Your task to perform on an android device: Go to Reddit.com Image 0: 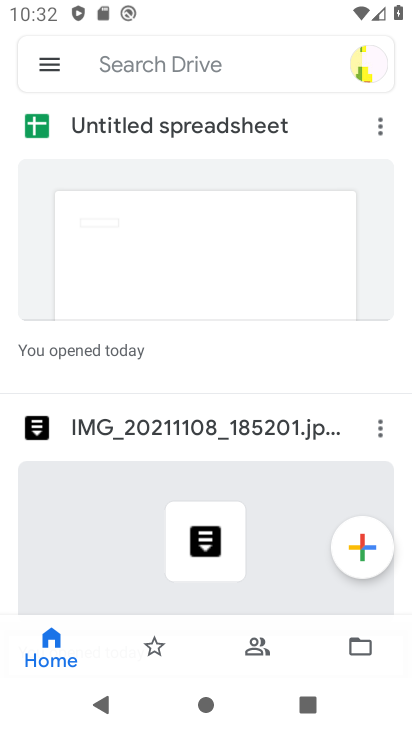
Step 0: press home button
Your task to perform on an android device: Go to Reddit.com Image 1: 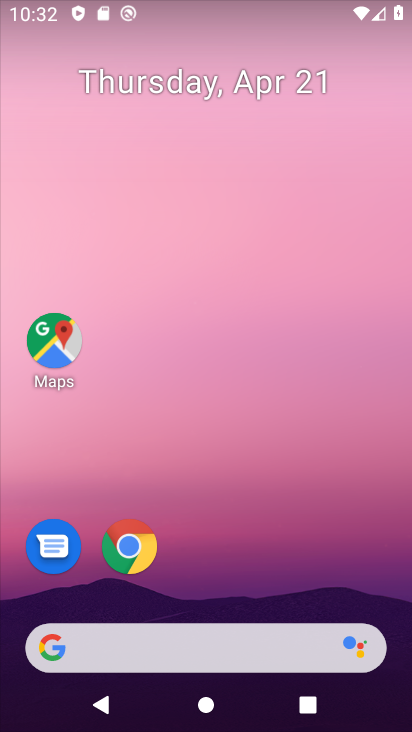
Step 1: drag from (295, 600) to (298, 150)
Your task to perform on an android device: Go to Reddit.com Image 2: 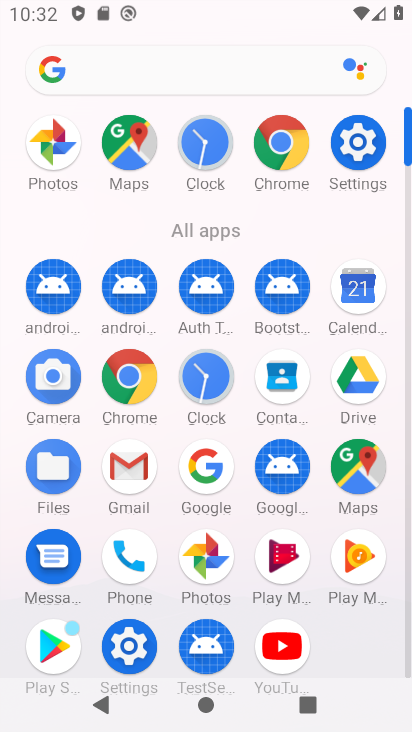
Step 2: click (135, 381)
Your task to perform on an android device: Go to Reddit.com Image 3: 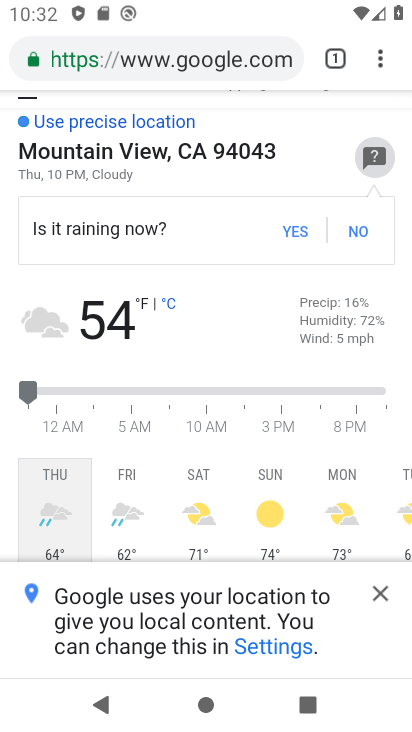
Step 3: click (217, 61)
Your task to perform on an android device: Go to Reddit.com Image 4: 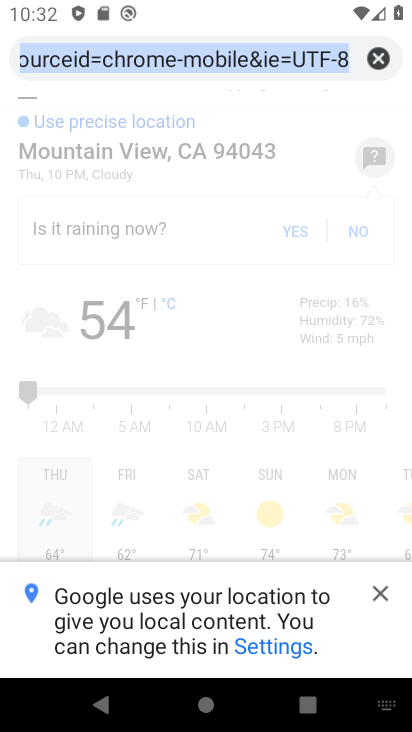
Step 4: type "reddit.com"
Your task to perform on an android device: Go to Reddit.com Image 5: 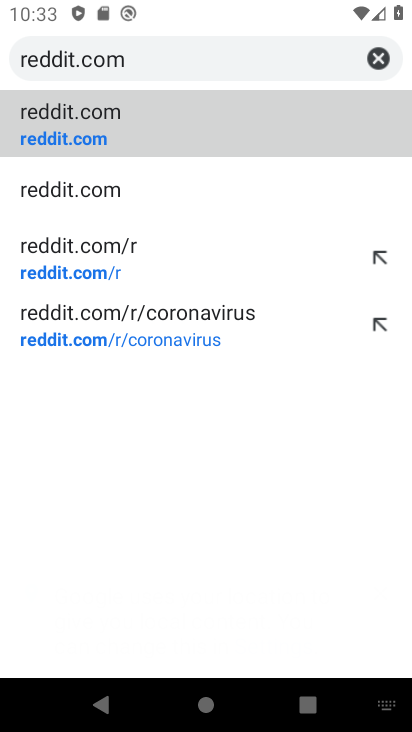
Step 5: click (42, 129)
Your task to perform on an android device: Go to Reddit.com Image 6: 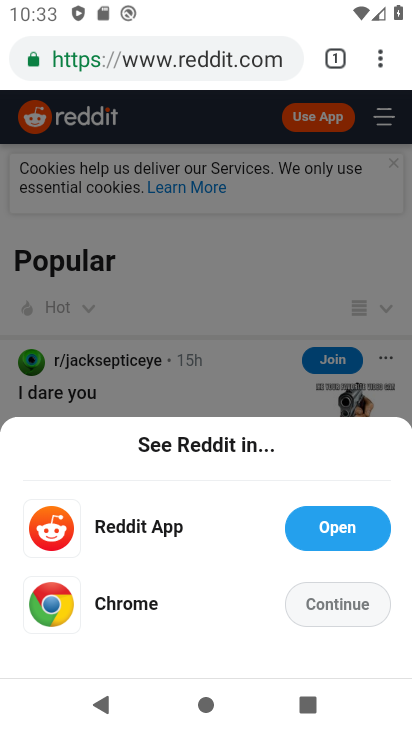
Step 6: task complete